Your task to perform on an android device: Do I have any events today? Image 0: 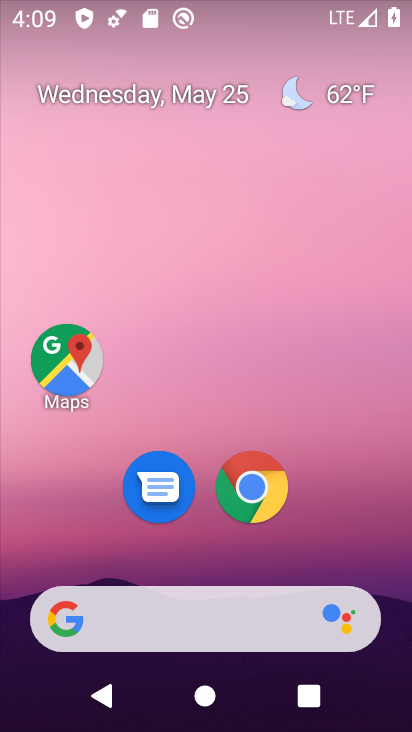
Step 0: drag from (369, 582) to (324, 60)
Your task to perform on an android device: Do I have any events today? Image 1: 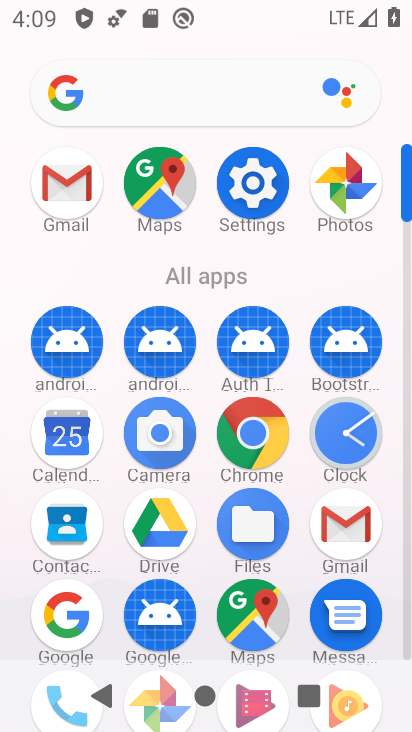
Step 1: click (66, 430)
Your task to perform on an android device: Do I have any events today? Image 2: 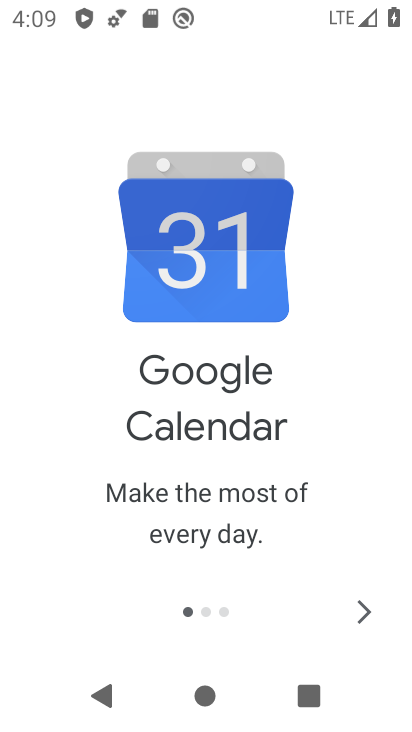
Step 2: click (367, 605)
Your task to perform on an android device: Do I have any events today? Image 3: 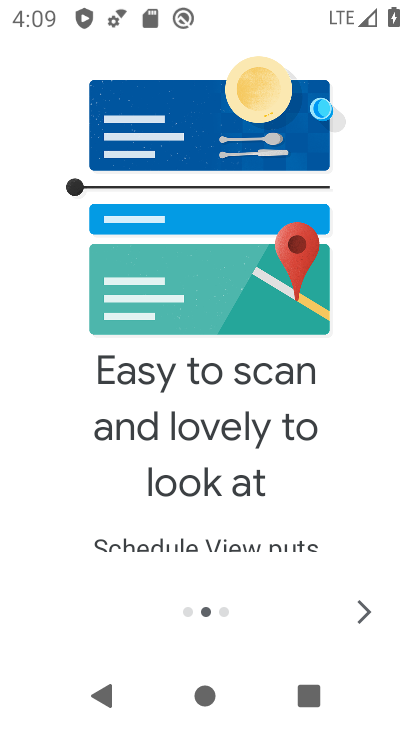
Step 3: click (370, 607)
Your task to perform on an android device: Do I have any events today? Image 4: 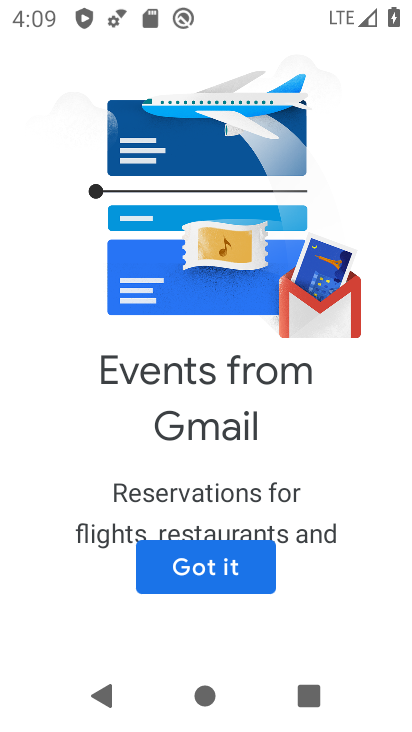
Step 4: click (202, 572)
Your task to perform on an android device: Do I have any events today? Image 5: 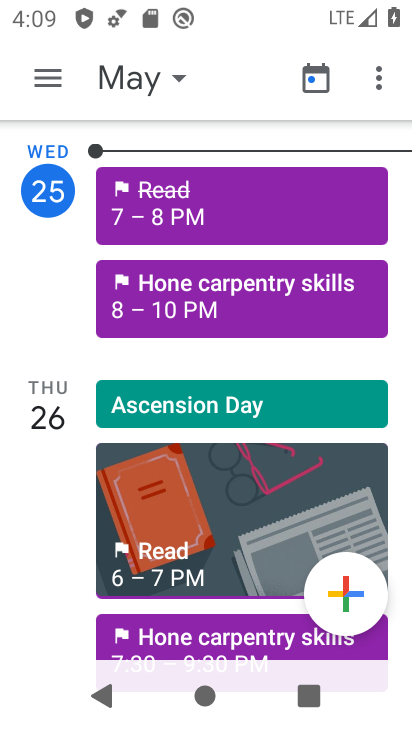
Step 5: click (57, 79)
Your task to perform on an android device: Do I have any events today? Image 6: 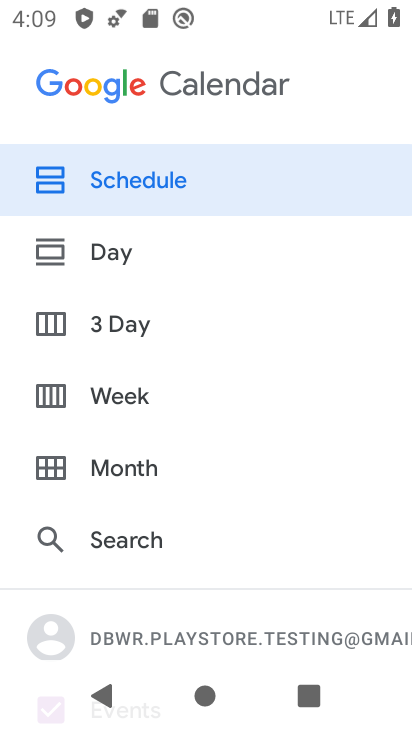
Step 6: click (146, 259)
Your task to perform on an android device: Do I have any events today? Image 7: 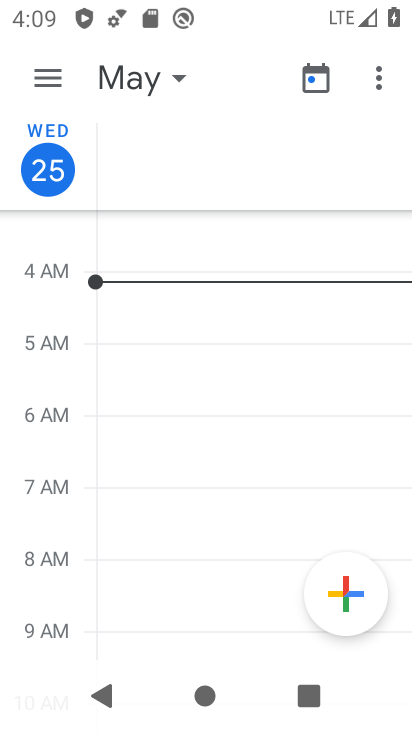
Step 7: task complete